Your task to perform on an android device: turn off data saver in the chrome app Image 0: 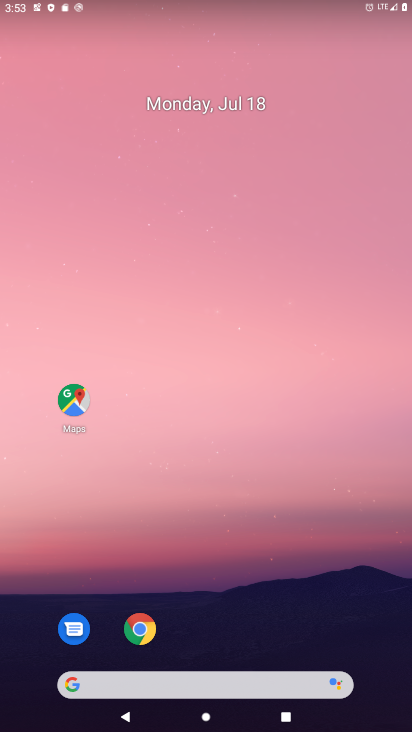
Step 0: drag from (214, 636) to (218, 223)
Your task to perform on an android device: turn off data saver in the chrome app Image 1: 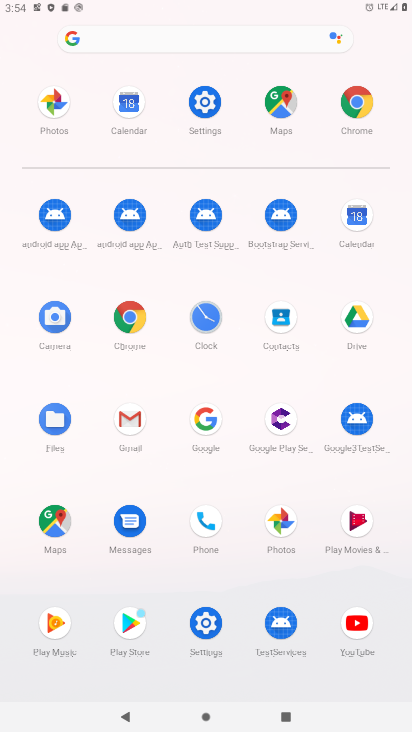
Step 1: click (130, 323)
Your task to perform on an android device: turn off data saver in the chrome app Image 2: 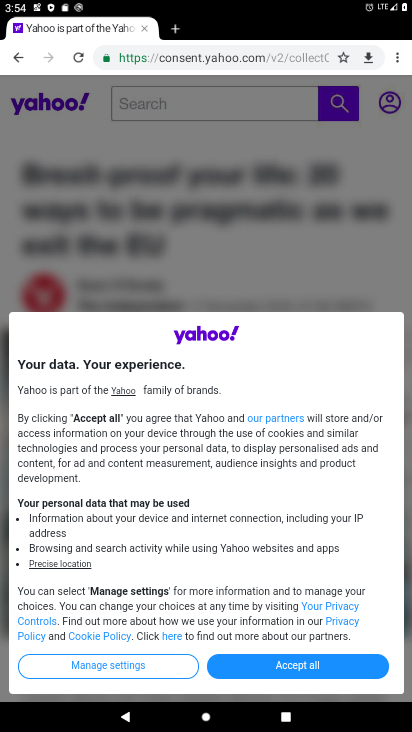
Step 2: click (213, 59)
Your task to perform on an android device: turn off data saver in the chrome app Image 3: 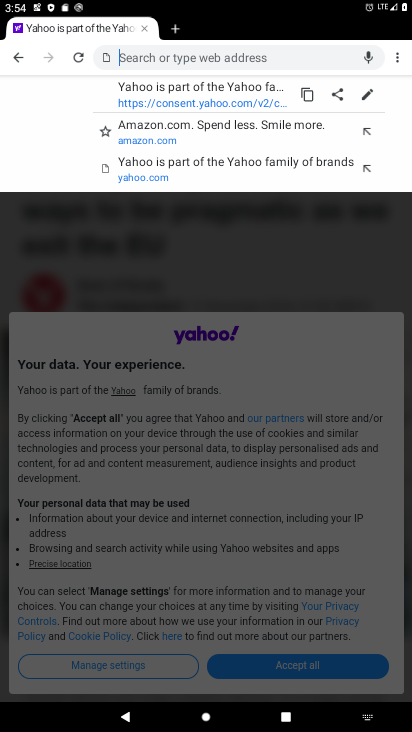
Step 3: click (393, 58)
Your task to perform on an android device: turn off data saver in the chrome app Image 4: 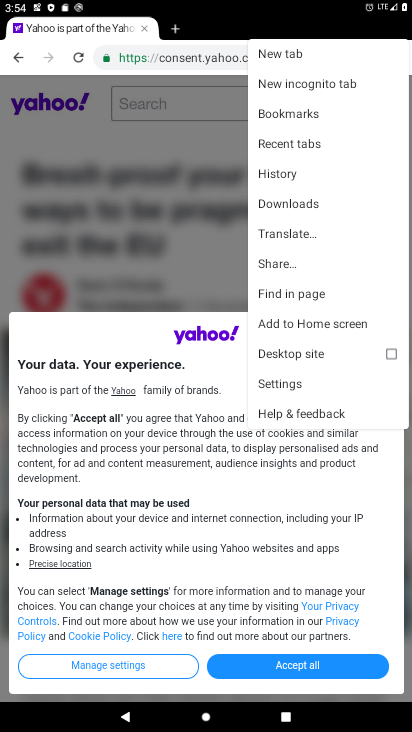
Step 4: click (276, 390)
Your task to perform on an android device: turn off data saver in the chrome app Image 5: 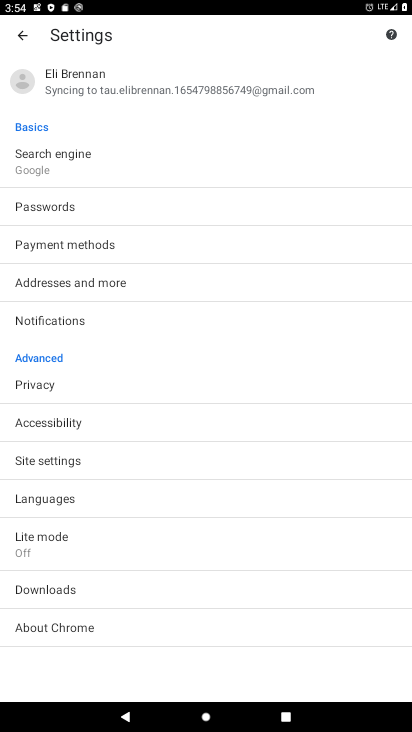
Step 5: click (45, 552)
Your task to perform on an android device: turn off data saver in the chrome app Image 6: 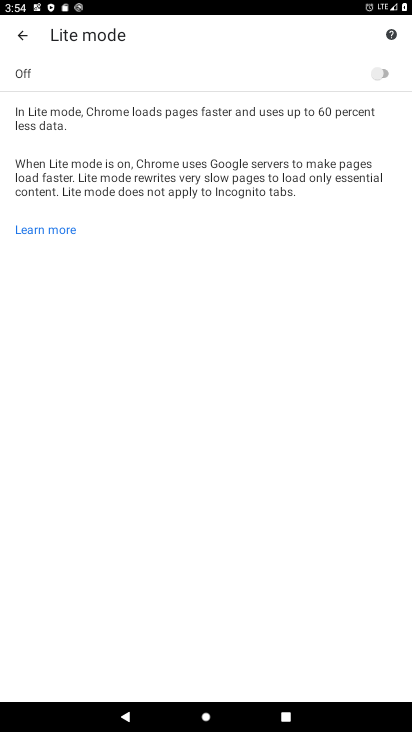
Step 6: task complete